Your task to perform on an android device: Go to accessibility settings Image 0: 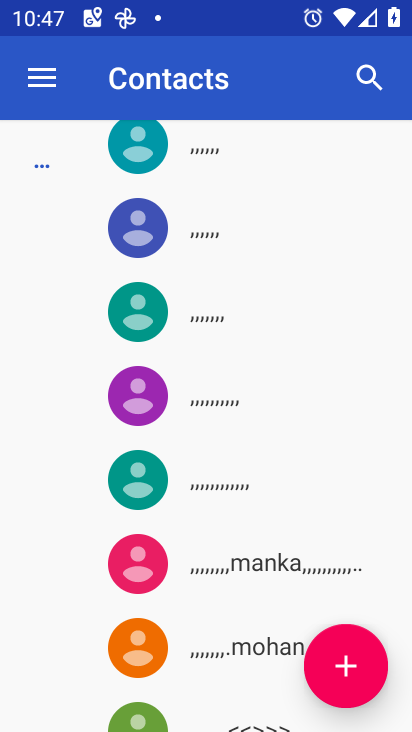
Step 0: press home button
Your task to perform on an android device: Go to accessibility settings Image 1: 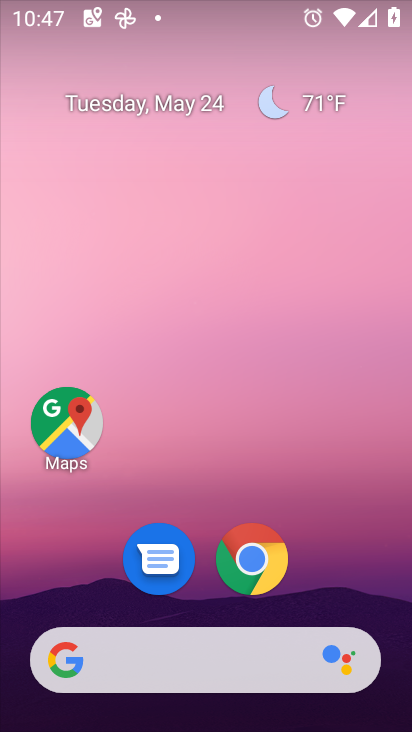
Step 1: drag from (385, 642) to (309, 69)
Your task to perform on an android device: Go to accessibility settings Image 2: 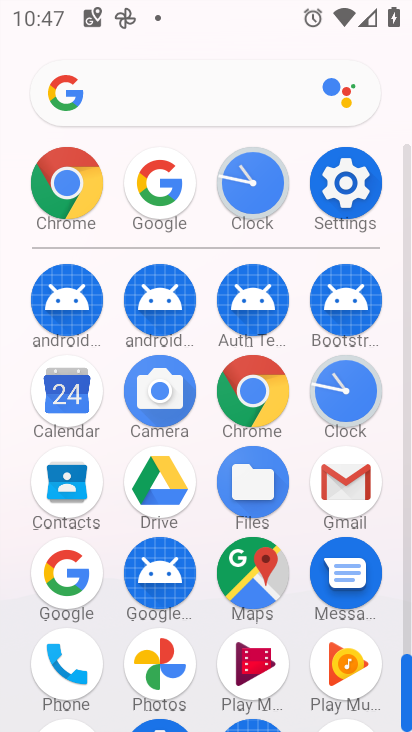
Step 2: click (326, 179)
Your task to perform on an android device: Go to accessibility settings Image 3: 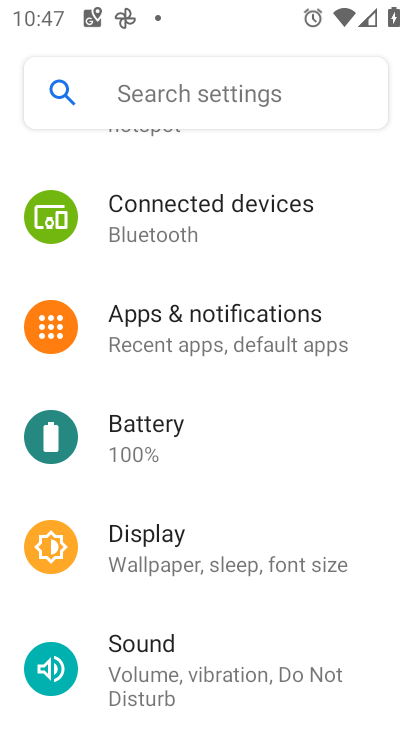
Step 3: drag from (163, 593) to (183, 63)
Your task to perform on an android device: Go to accessibility settings Image 4: 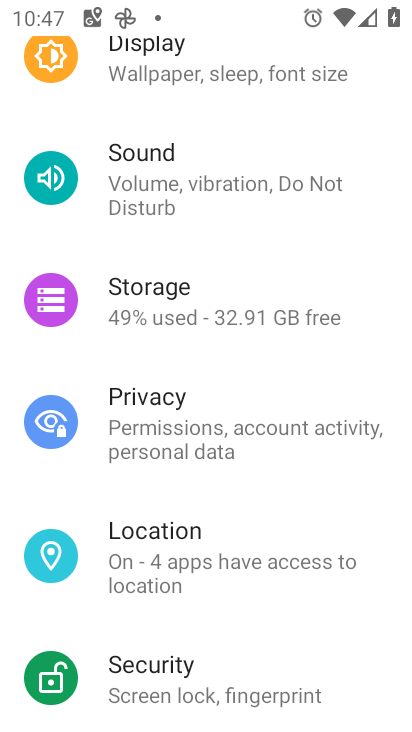
Step 4: drag from (168, 551) to (145, 12)
Your task to perform on an android device: Go to accessibility settings Image 5: 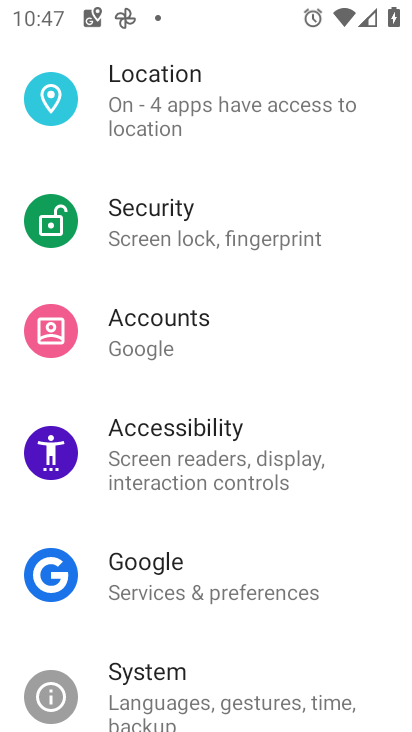
Step 5: click (202, 455)
Your task to perform on an android device: Go to accessibility settings Image 6: 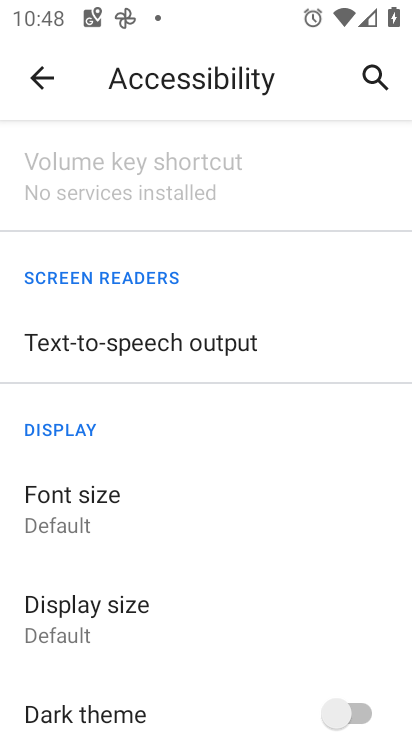
Step 6: task complete